Your task to perform on an android device: toggle wifi Image 0: 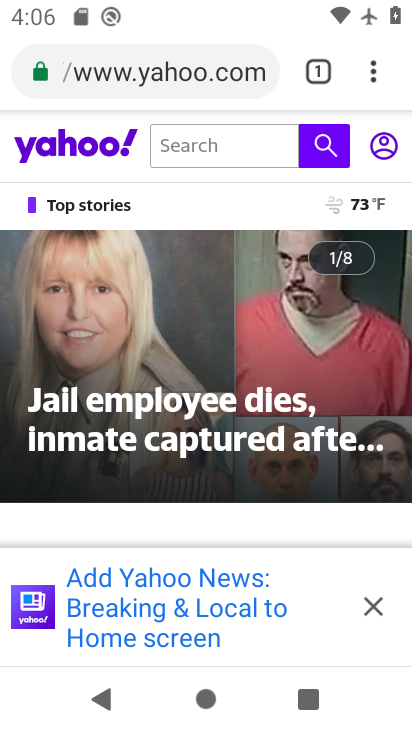
Step 0: press home button
Your task to perform on an android device: toggle wifi Image 1: 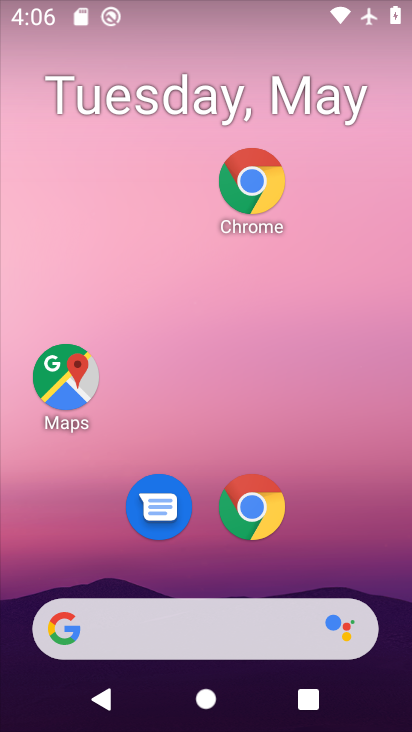
Step 1: drag from (326, 477) to (362, 78)
Your task to perform on an android device: toggle wifi Image 2: 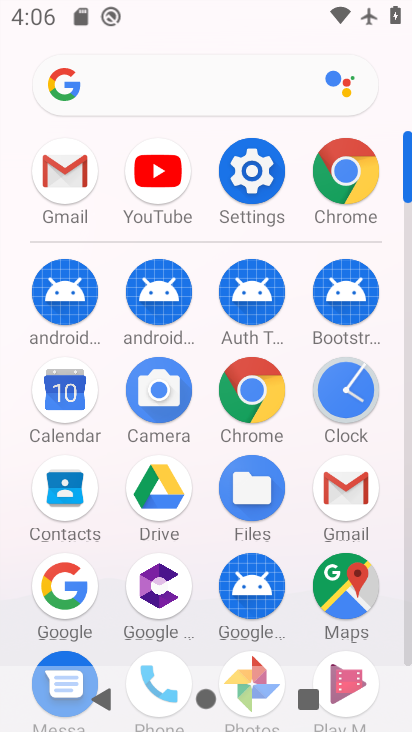
Step 2: click (266, 187)
Your task to perform on an android device: toggle wifi Image 3: 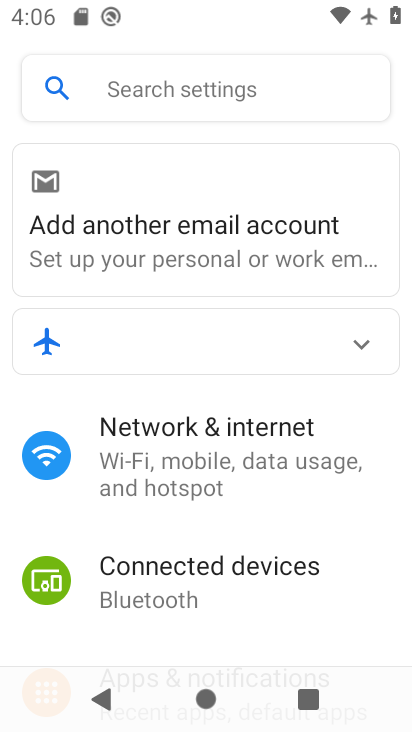
Step 3: click (181, 412)
Your task to perform on an android device: toggle wifi Image 4: 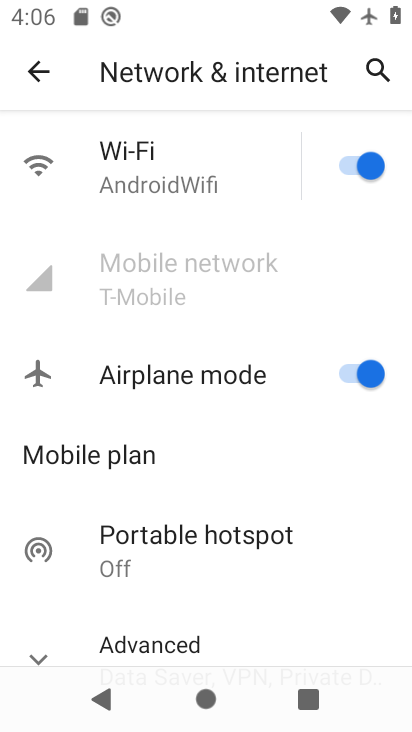
Step 4: click (356, 170)
Your task to perform on an android device: toggle wifi Image 5: 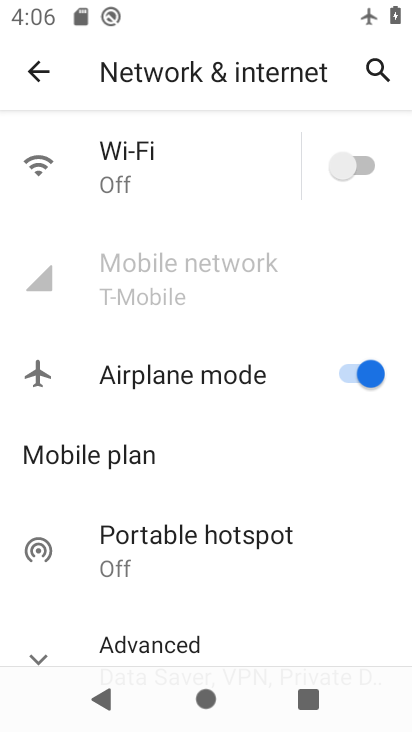
Step 5: task complete